Your task to perform on an android device: change the clock display to analog Image 0: 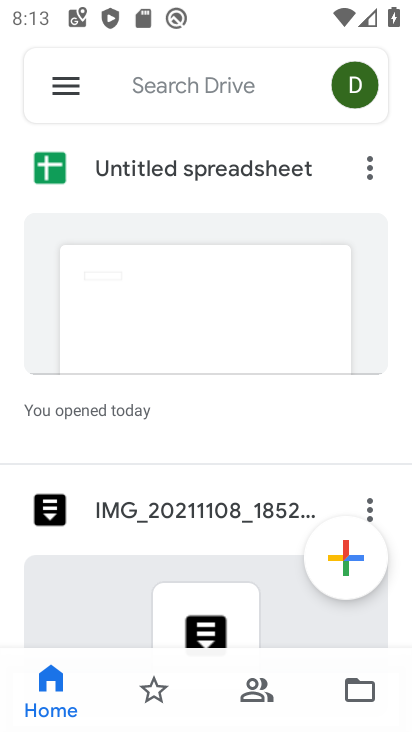
Step 0: press home button
Your task to perform on an android device: change the clock display to analog Image 1: 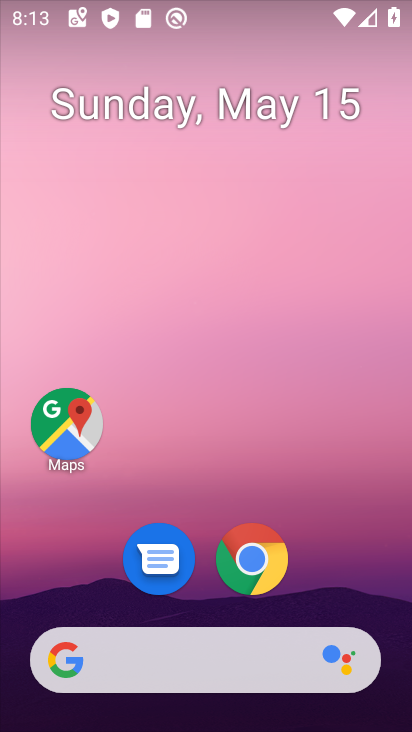
Step 1: drag from (380, 527) to (295, 235)
Your task to perform on an android device: change the clock display to analog Image 2: 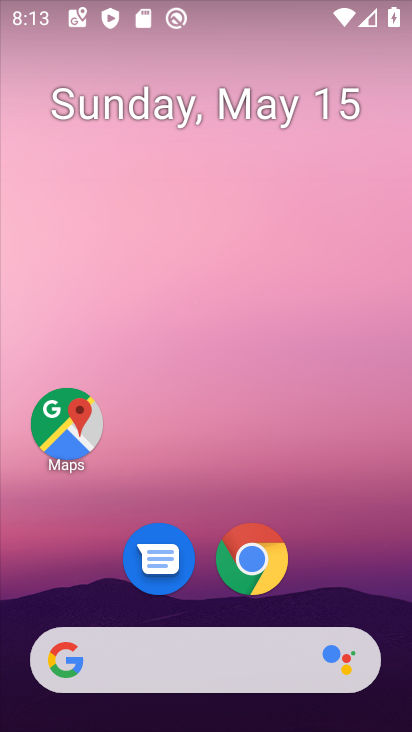
Step 2: drag from (347, 524) to (256, 129)
Your task to perform on an android device: change the clock display to analog Image 3: 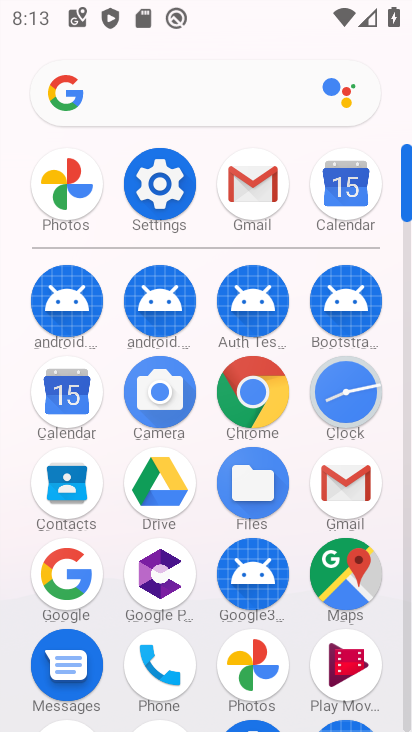
Step 3: click (353, 397)
Your task to perform on an android device: change the clock display to analog Image 4: 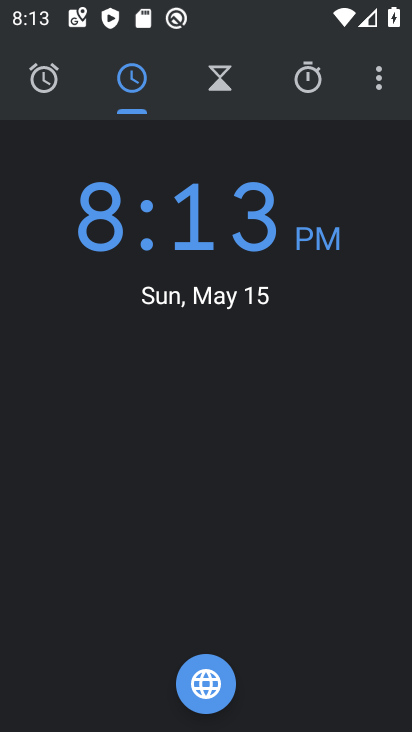
Step 4: click (365, 93)
Your task to perform on an android device: change the clock display to analog Image 5: 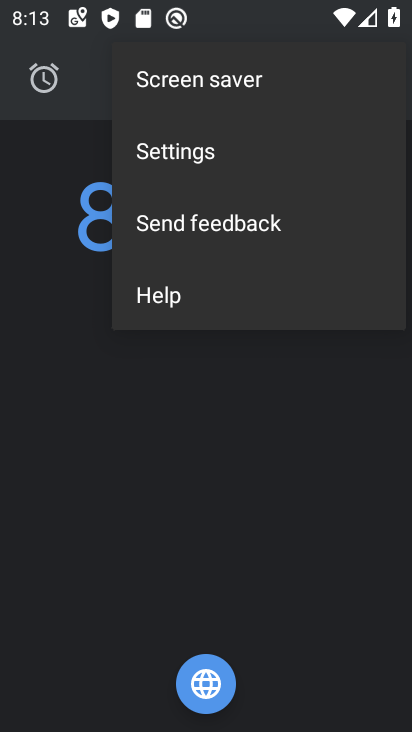
Step 5: click (288, 171)
Your task to perform on an android device: change the clock display to analog Image 6: 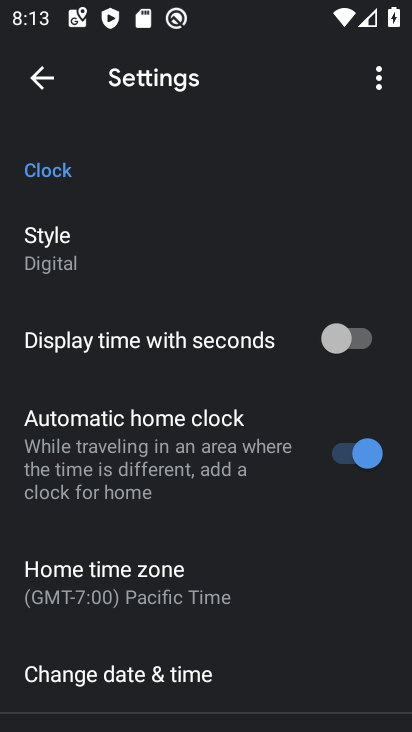
Step 6: click (223, 262)
Your task to perform on an android device: change the clock display to analog Image 7: 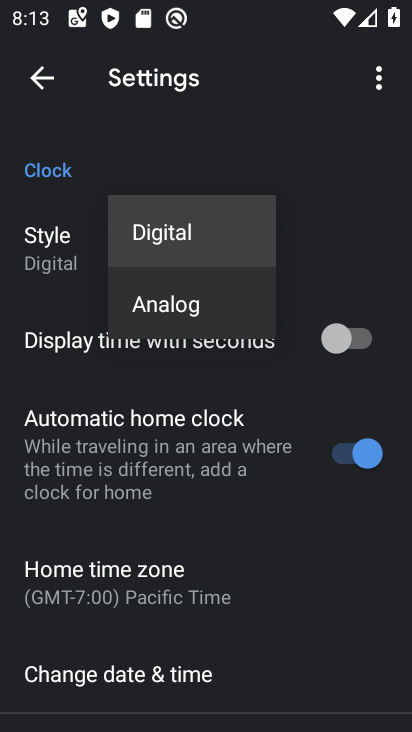
Step 7: click (214, 320)
Your task to perform on an android device: change the clock display to analog Image 8: 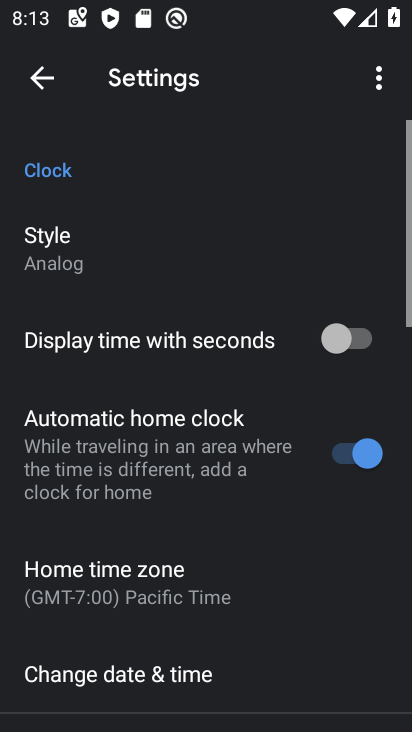
Step 8: task complete